Your task to perform on an android device: Open Chrome and go to the settings page Image 0: 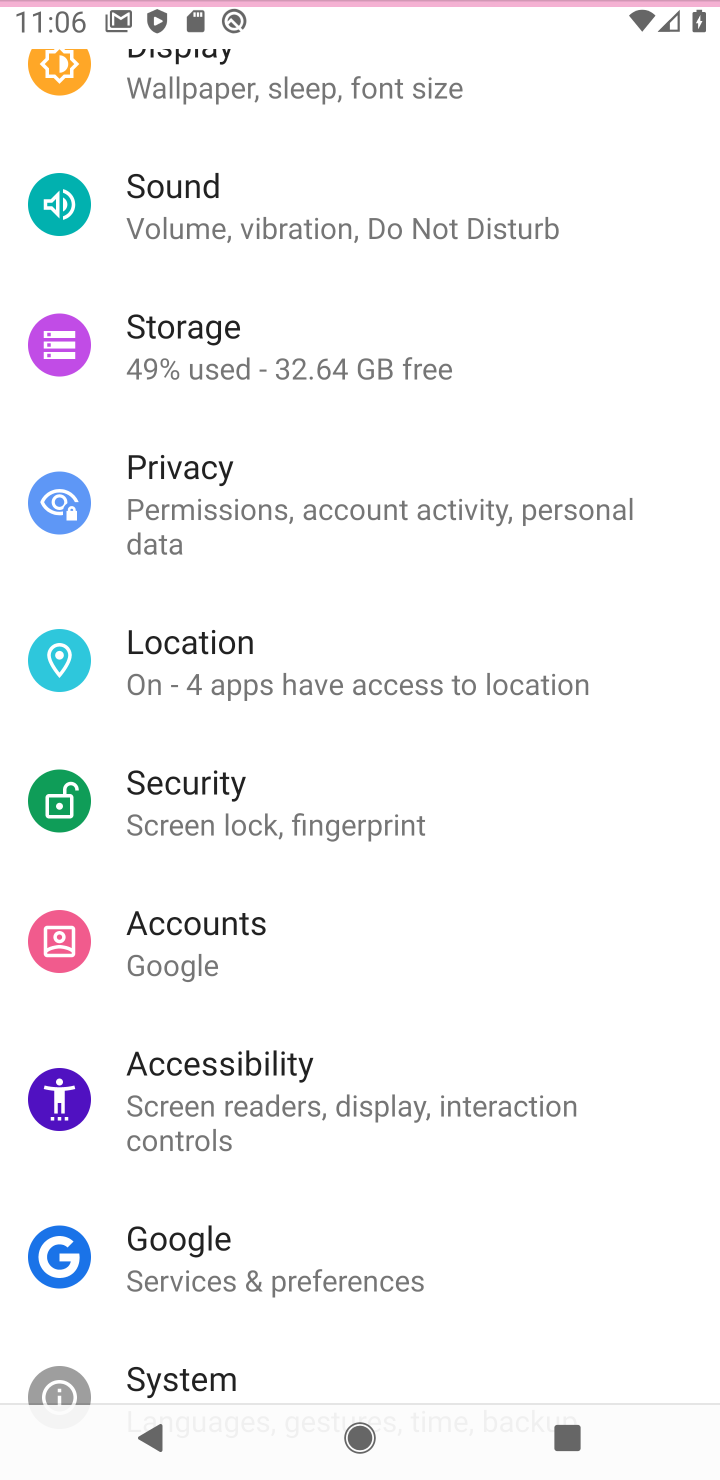
Step 0: drag from (329, 11) to (288, 176)
Your task to perform on an android device: Open Chrome and go to the settings page Image 1: 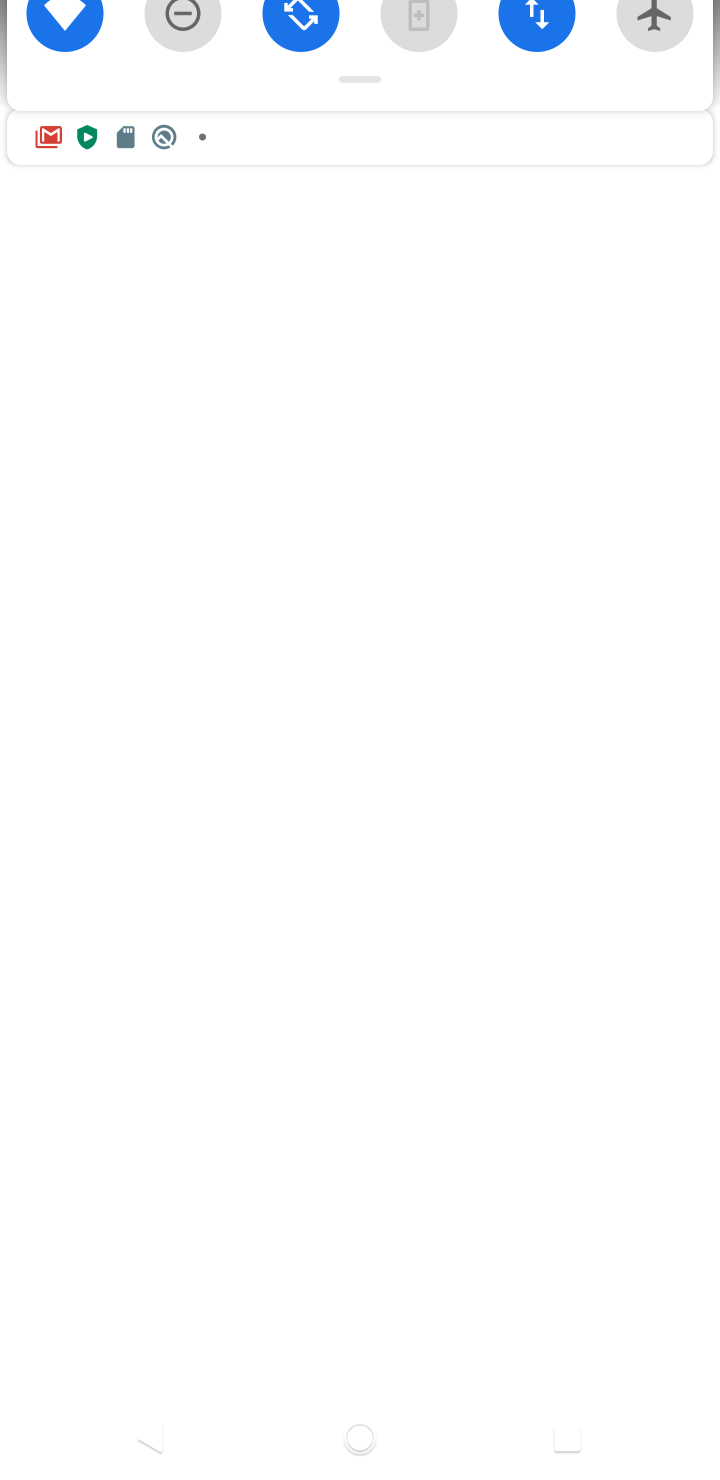
Step 1: press back button
Your task to perform on an android device: Open Chrome and go to the settings page Image 2: 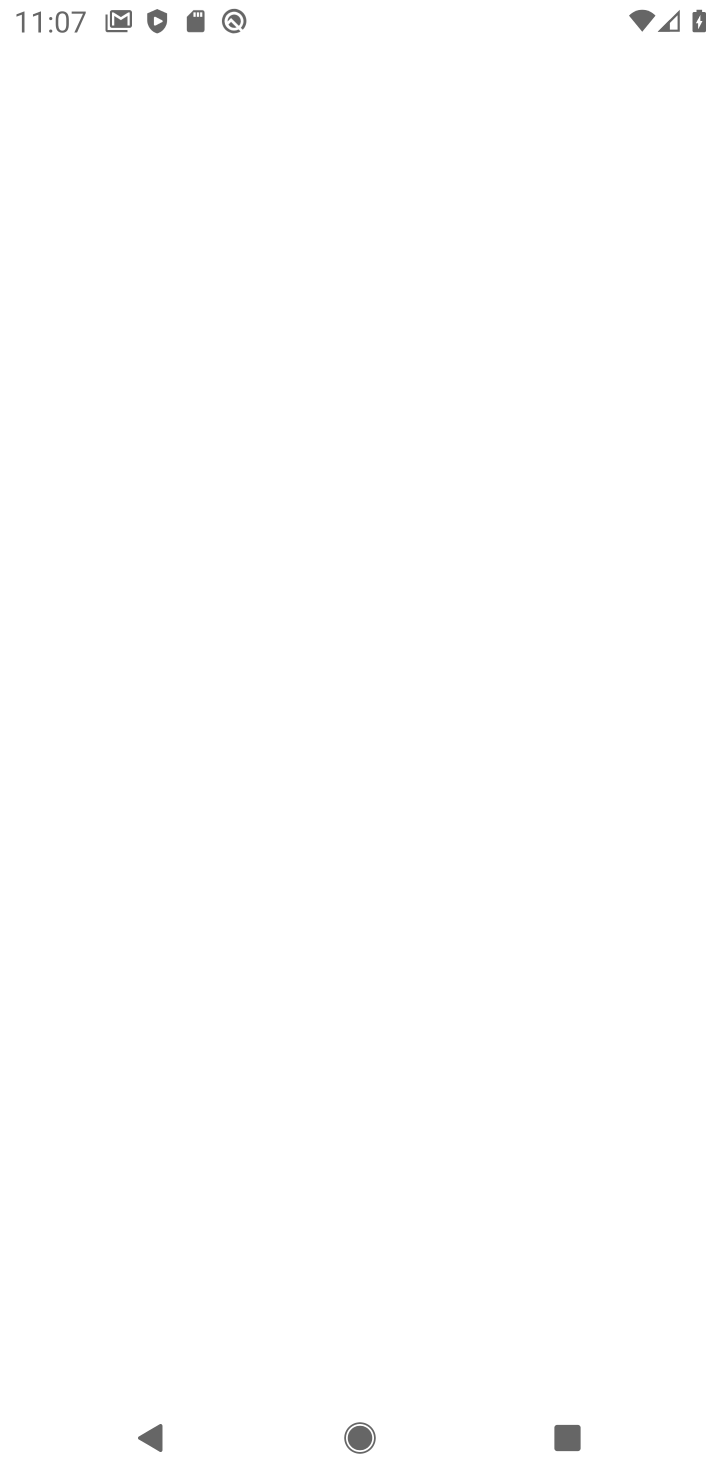
Step 2: press home button
Your task to perform on an android device: Open Chrome and go to the settings page Image 3: 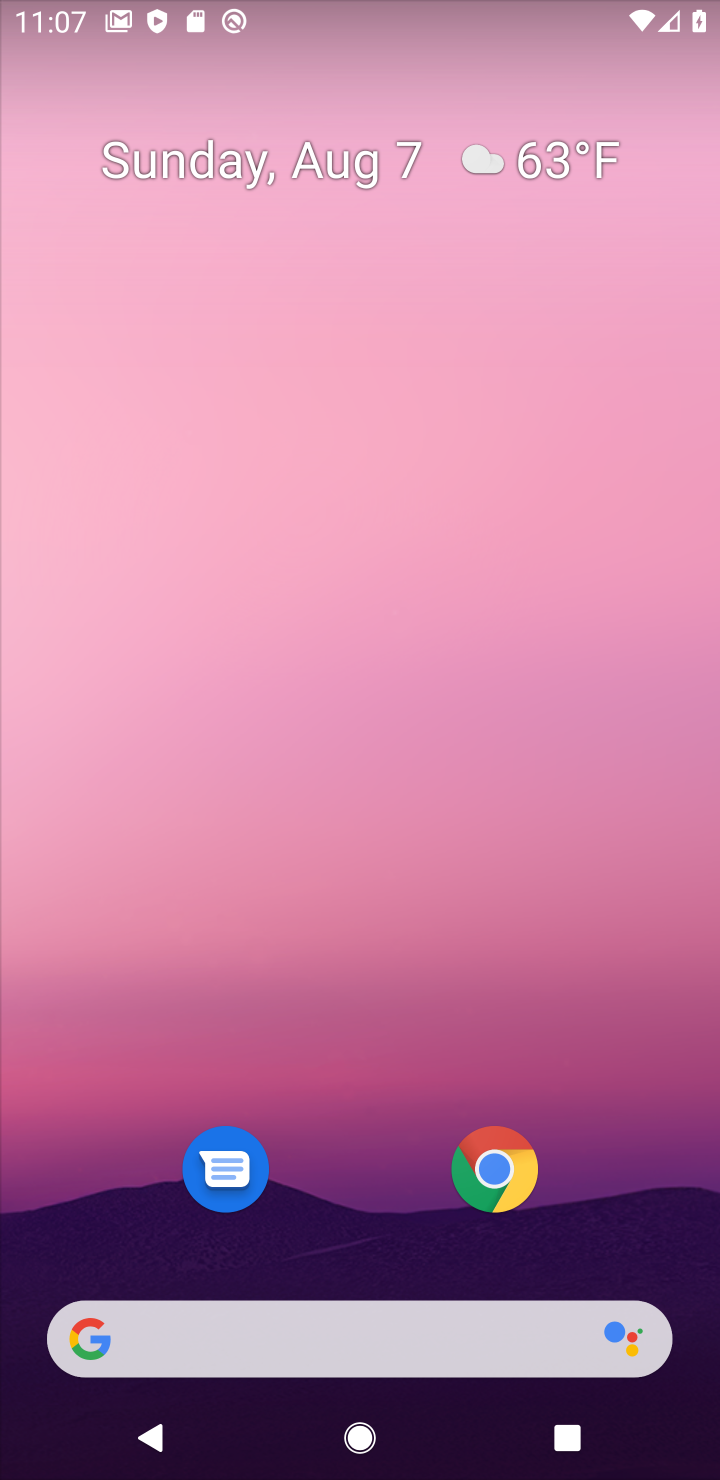
Step 3: drag from (388, 1286) to (301, 36)
Your task to perform on an android device: Open Chrome and go to the settings page Image 4: 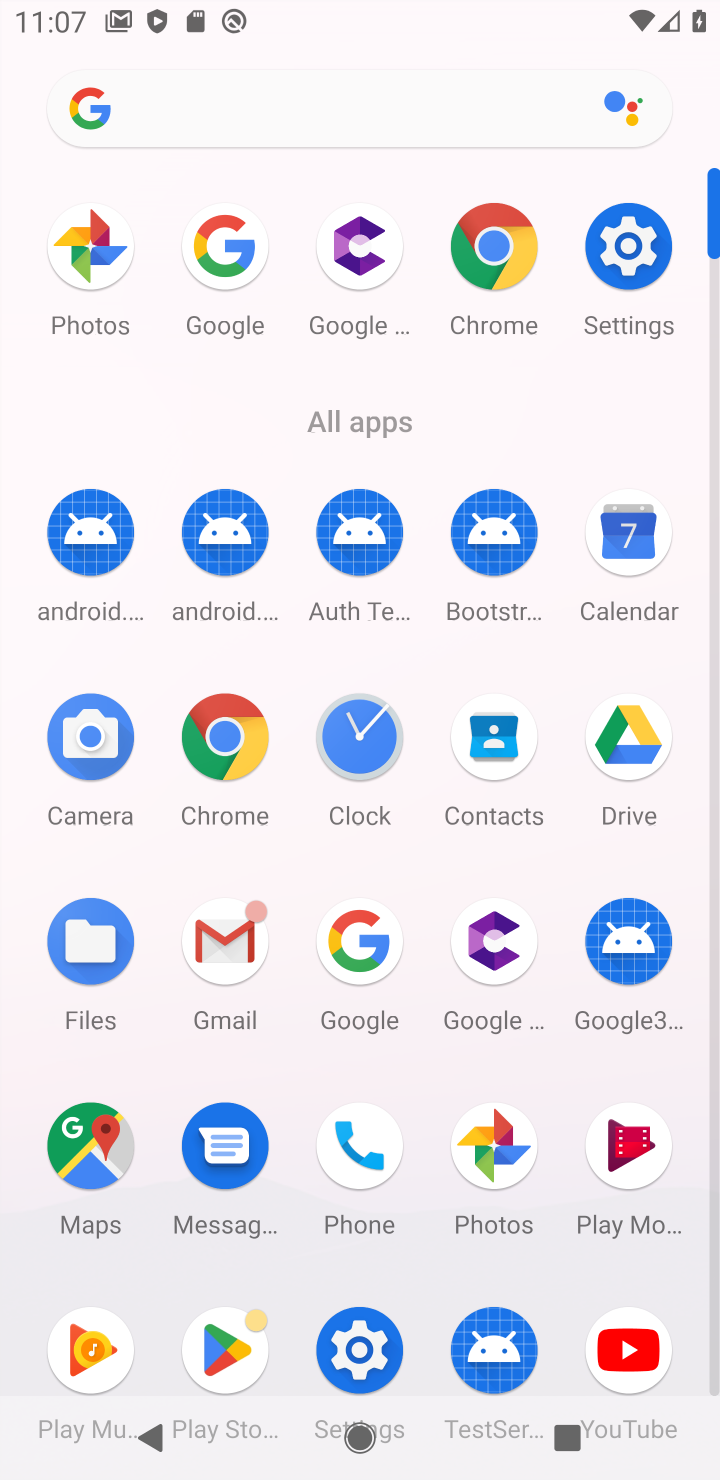
Step 4: click (487, 272)
Your task to perform on an android device: Open Chrome and go to the settings page Image 5: 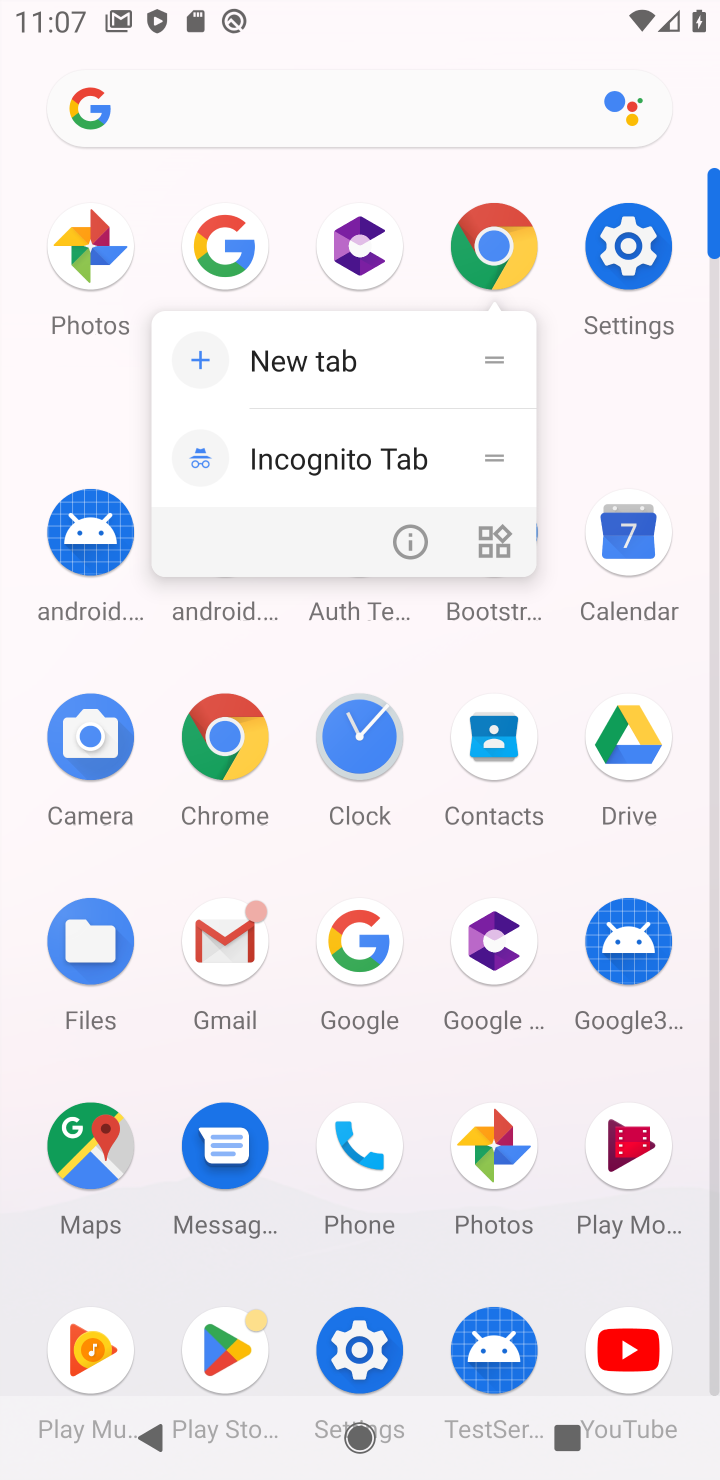
Step 5: click (500, 246)
Your task to perform on an android device: Open Chrome and go to the settings page Image 6: 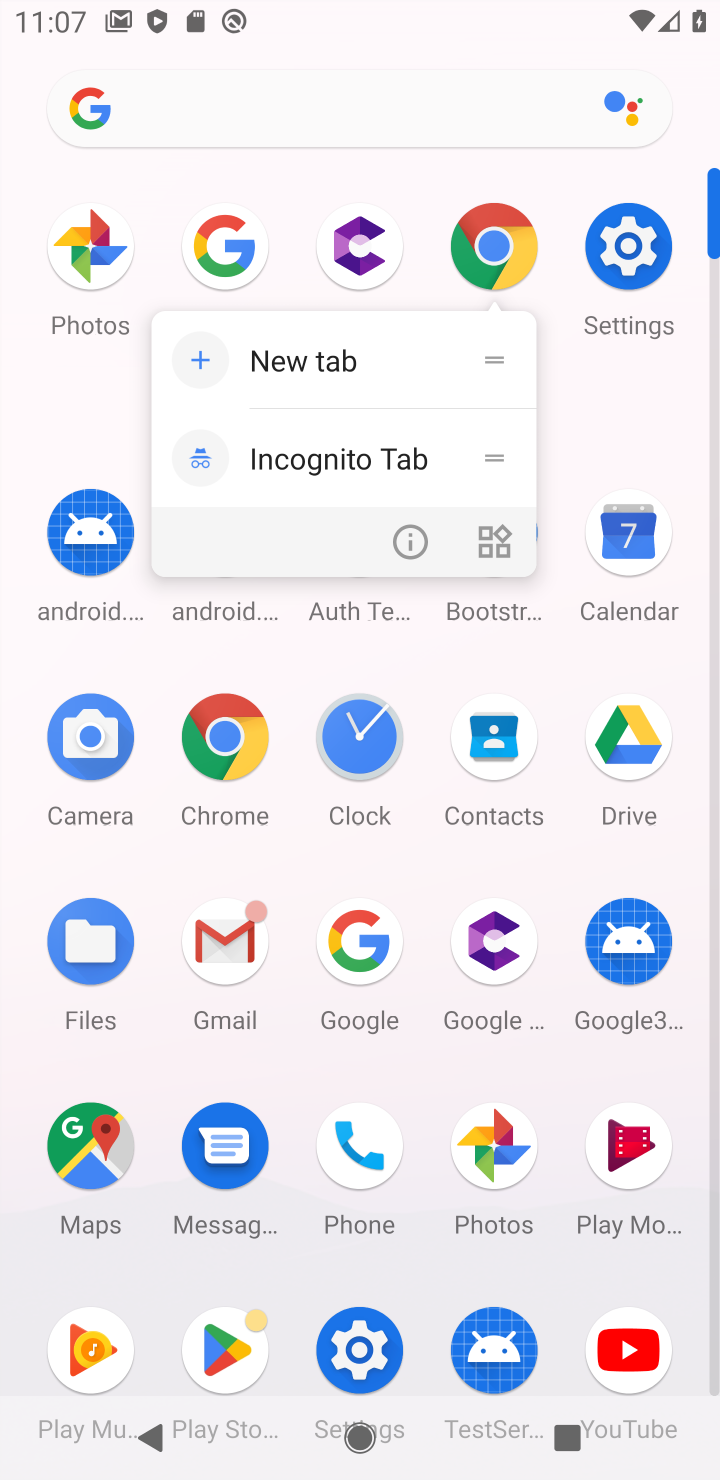
Step 6: click (500, 217)
Your task to perform on an android device: Open Chrome and go to the settings page Image 7: 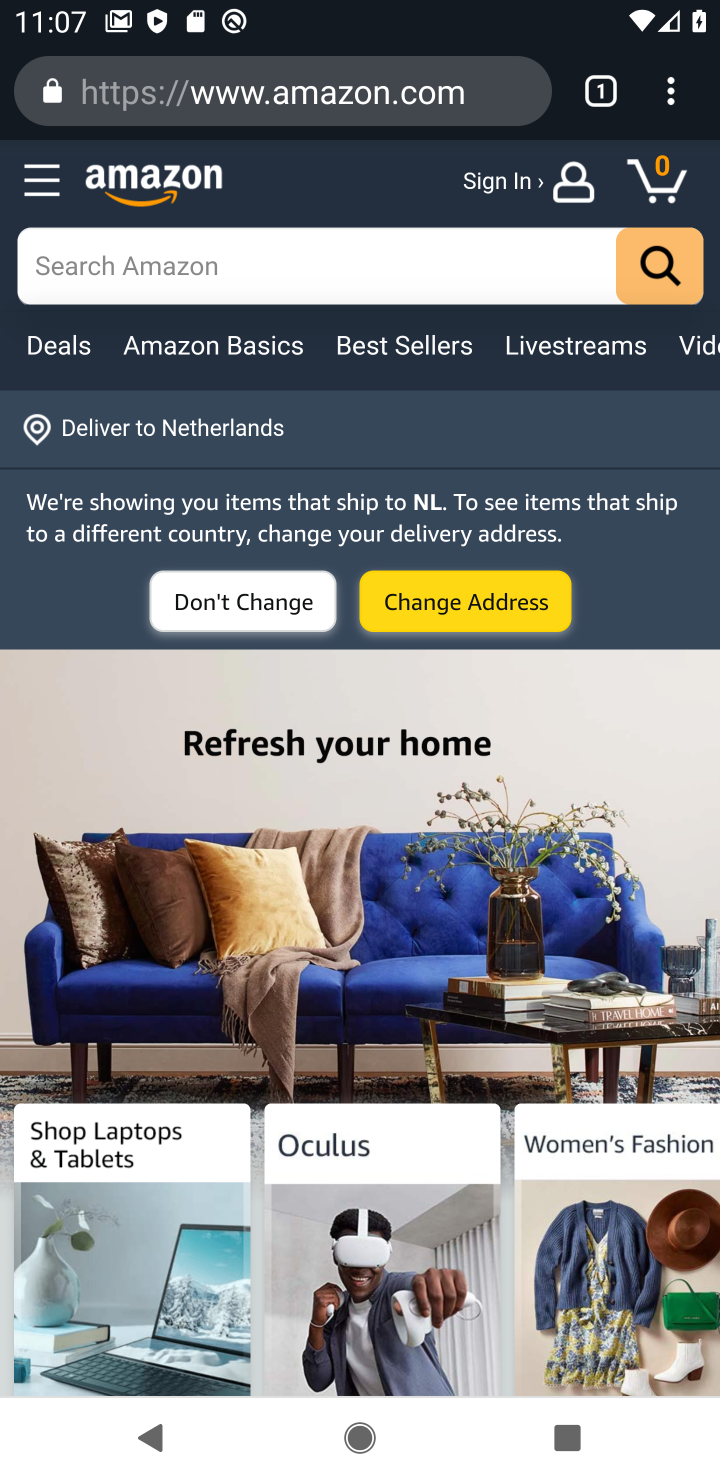
Step 7: task complete